Your task to perform on an android device: Go to location settings Image 0: 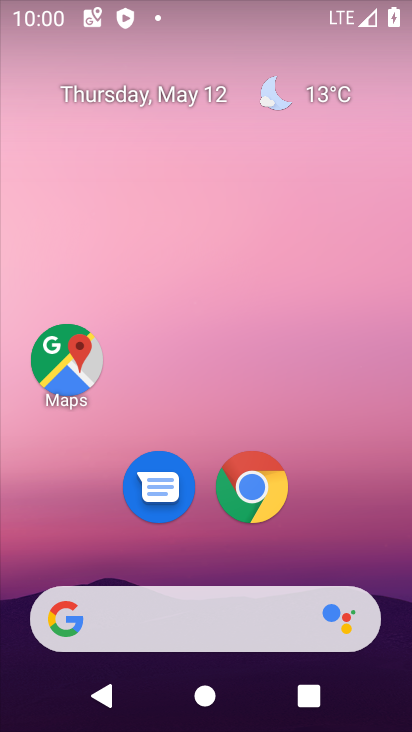
Step 0: drag from (359, 553) to (300, 14)
Your task to perform on an android device: Go to location settings Image 1: 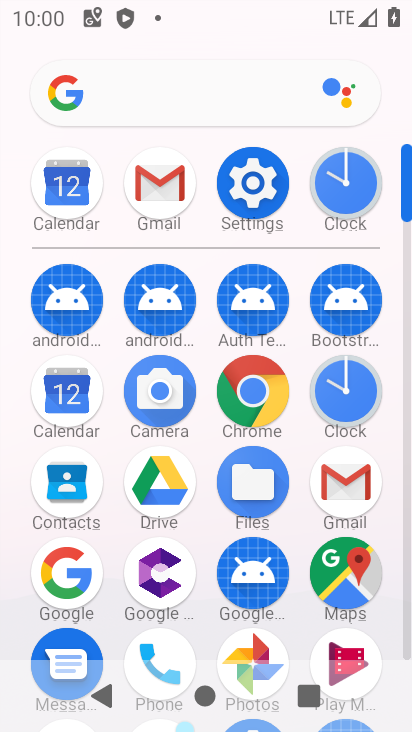
Step 1: click (251, 186)
Your task to perform on an android device: Go to location settings Image 2: 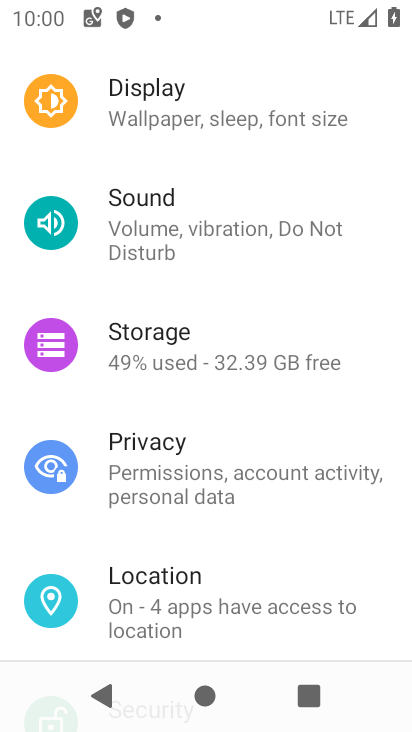
Step 2: click (159, 593)
Your task to perform on an android device: Go to location settings Image 3: 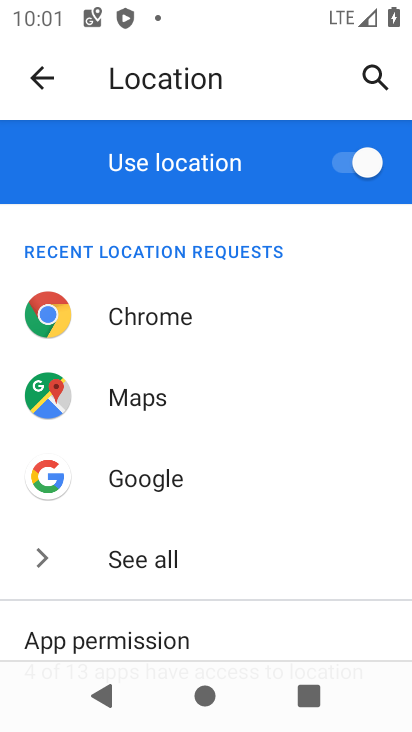
Step 3: task complete